Your task to perform on an android device: see tabs open on other devices in the chrome app Image 0: 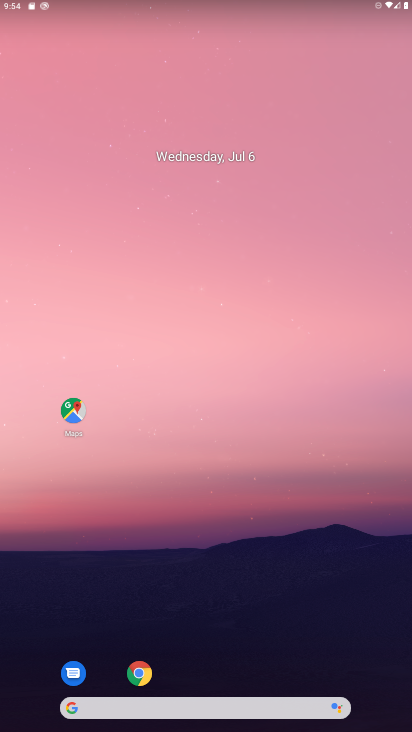
Step 0: click (144, 684)
Your task to perform on an android device: see tabs open on other devices in the chrome app Image 1: 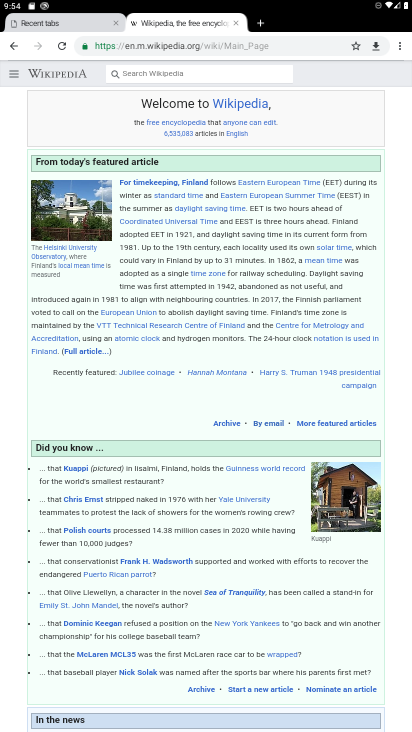
Step 1: click (402, 47)
Your task to perform on an android device: see tabs open on other devices in the chrome app Image 2: 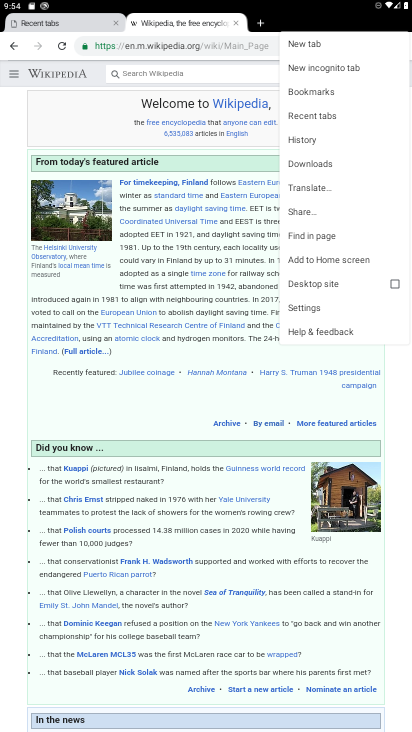
Step 2: click (298, 114)
Your task to perform on an android device: see tabs open on other devices in the chrome app Image 3: 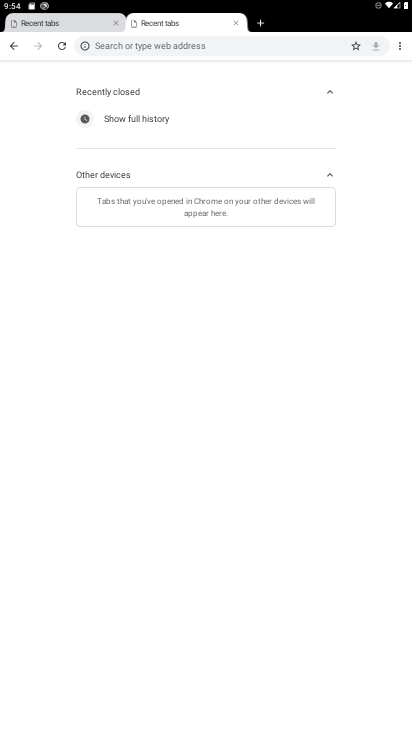
Step 3: task complete